Your task to perform on an android device: toggle translation in the chrome app Image 0: 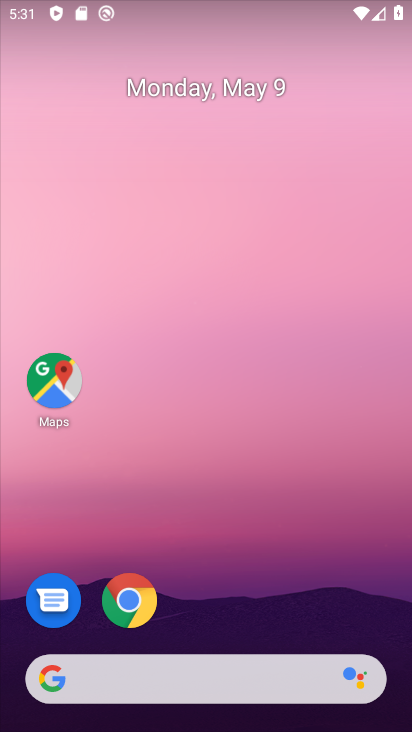
Step 0: click (145, 600)
Your task to perform on an android device: toggle translation in the chrome app Image 1: 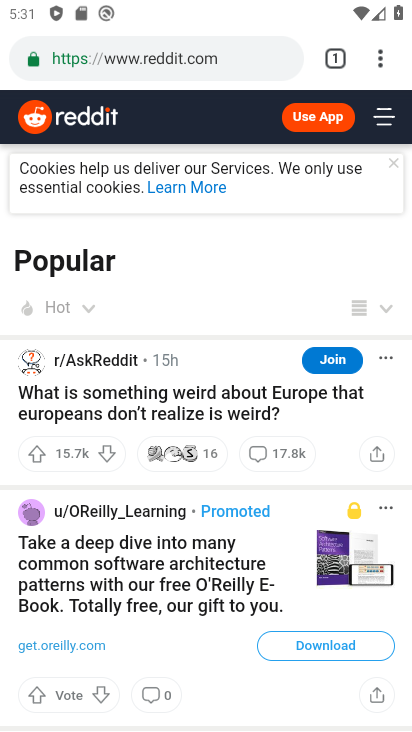
Step 1: click (386, 58)
Your task to perform on an android device: toggle translation in the chrome app Image 2: 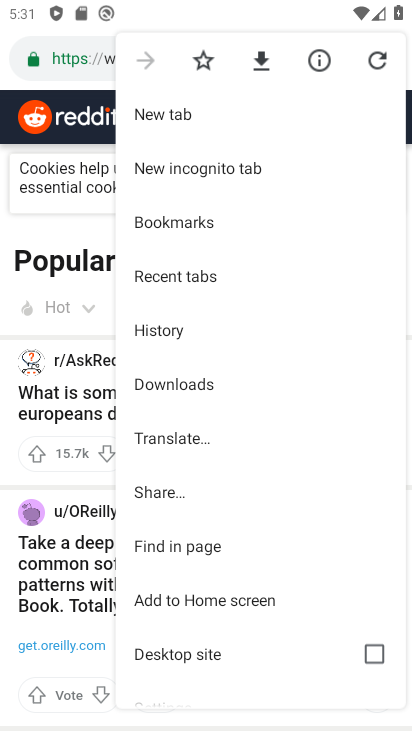
Step 2: drag from (177, 588) to (196, 242)
Your task to perform on an android device: toggle translation in the chrome app Image 3: 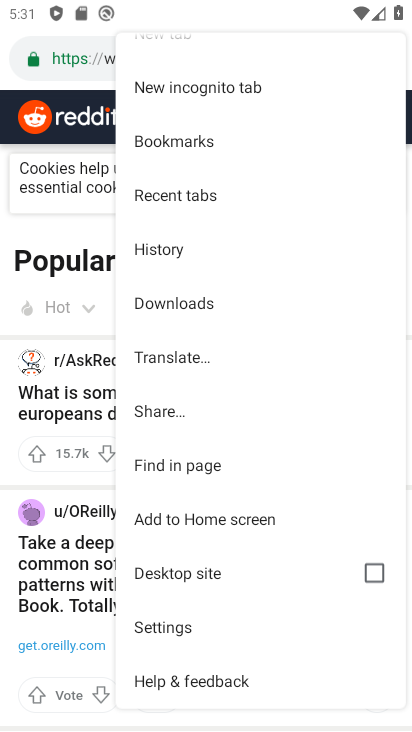
Step 3: click (176, 628)
Your task to perform on an android device: toggle translation in the chrome app Image 4: 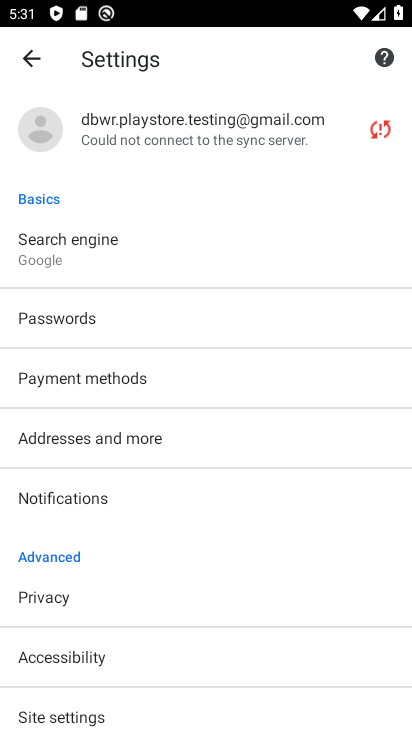
Step 4: drag from (113, 586) to (131, 385)
Your task to perform on an android device: toggle translation in the chrome app Image 5: 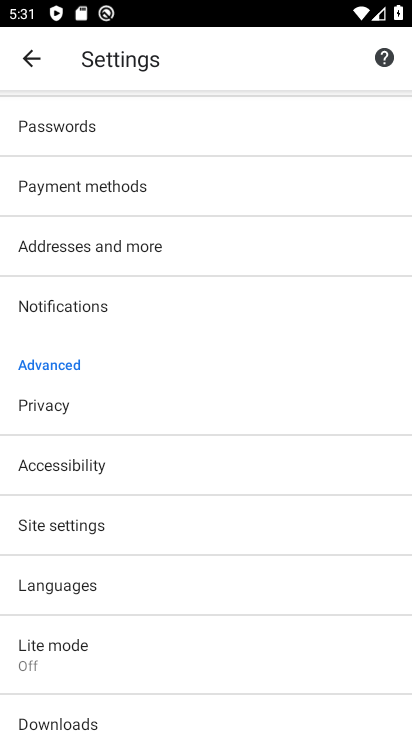
Step 5: click (71, 587)
Your task to perform on an android device: toggle translation in the chrome app Image 6: 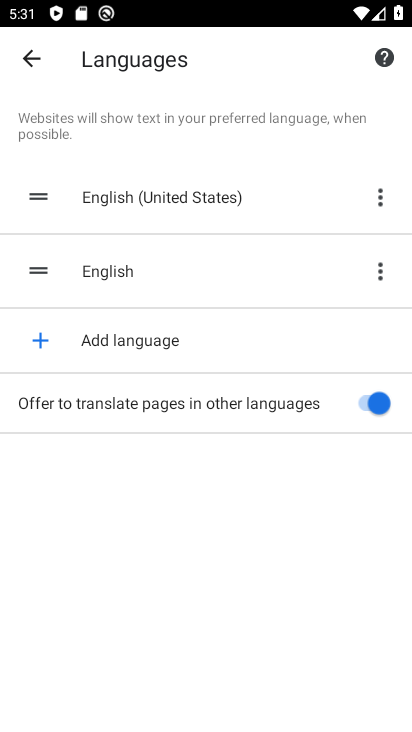
Step 6: click (348, 410)
Your task to perform on an android device: toggle translation in the chrome app Image 7: 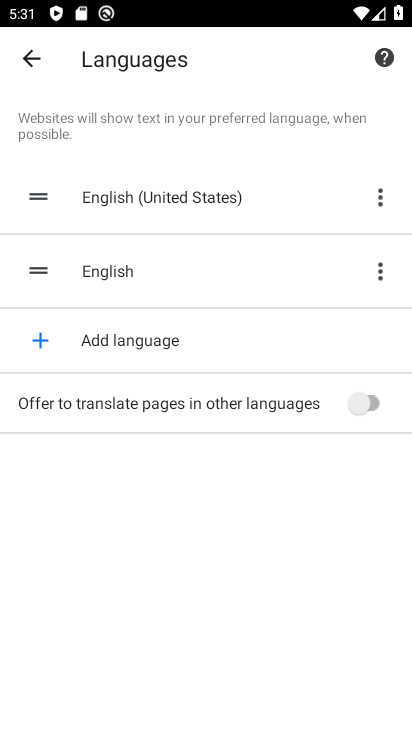
Step 7: task complete